Your task to perform on an android device: Search for "beats solo 3" on bestbuy, select the first entry, add it to the cart, then select checkout. Image 0: 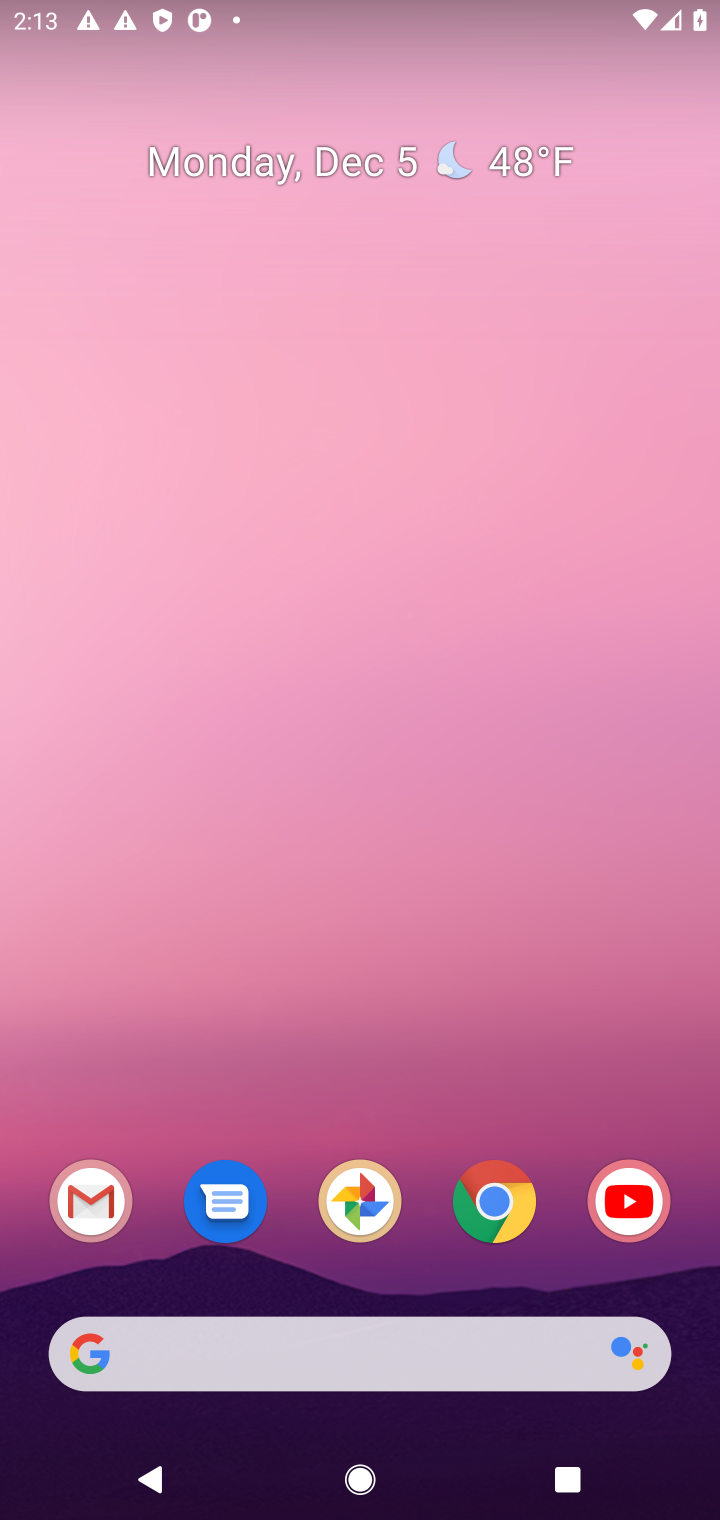
Step 0: click (494, 1209)
Your task to perform on an android device: Search for "beats solo 3" on bestbuy, select the first entry, add it to the cart, then select checkout. Image 1: 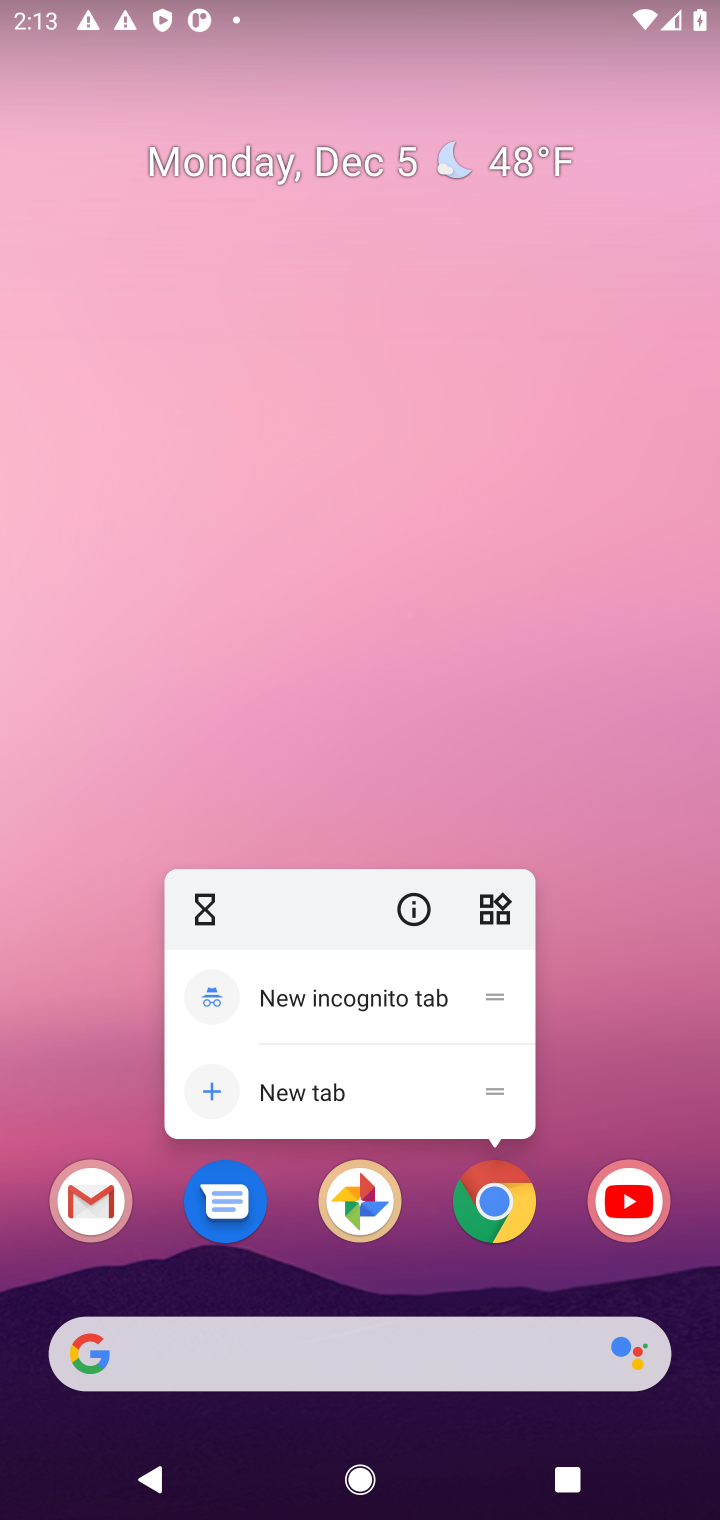
Step 1: click (480, 1202)
Your task to perform on an android device: Search for "beats solo 3" on bestbuy, select the first entry, add it to the cart, then select checkout. Image 2: 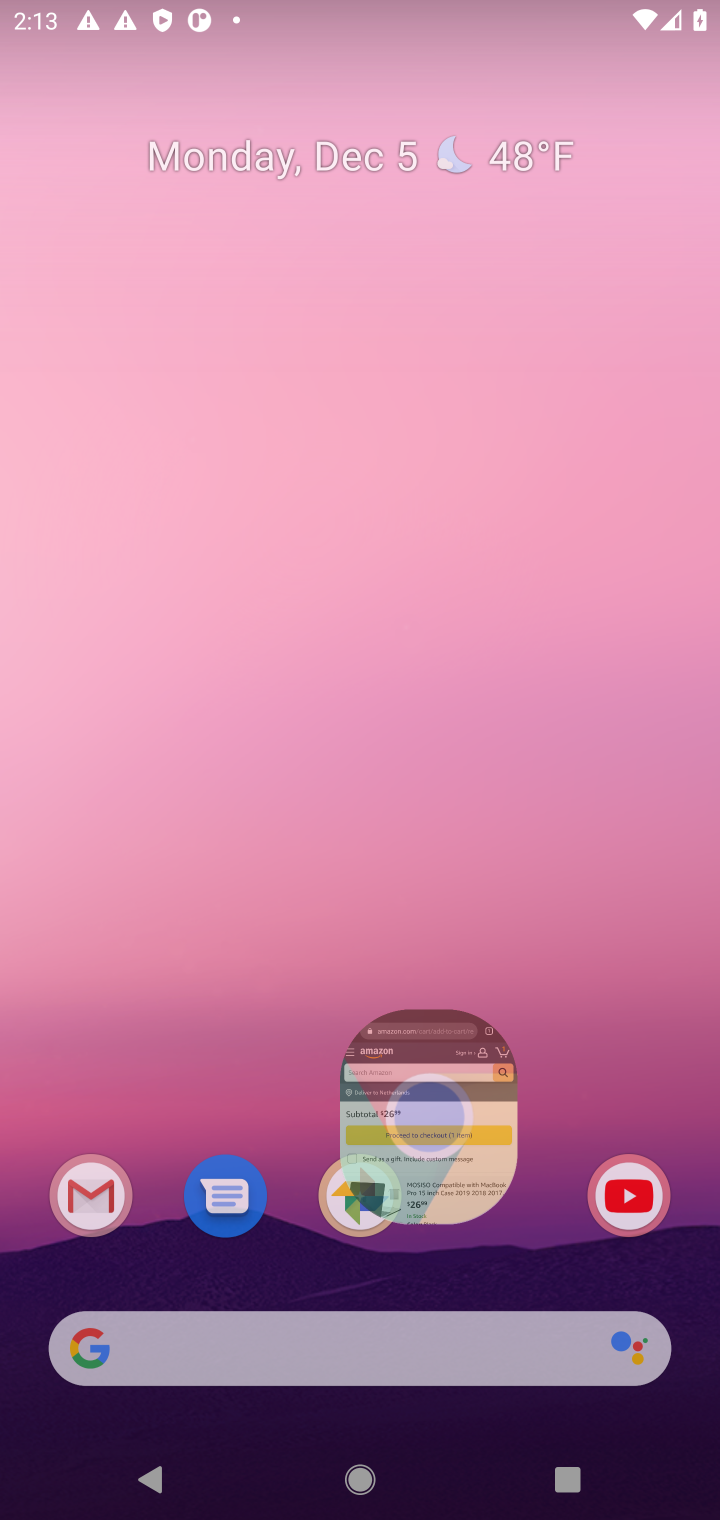
Step 2: click (480, 1202)
Your task to perform on an android device: Search for "beats solo 3" on bestbuy, select the first entry, add it to the cart, then select checkout. Image 3: 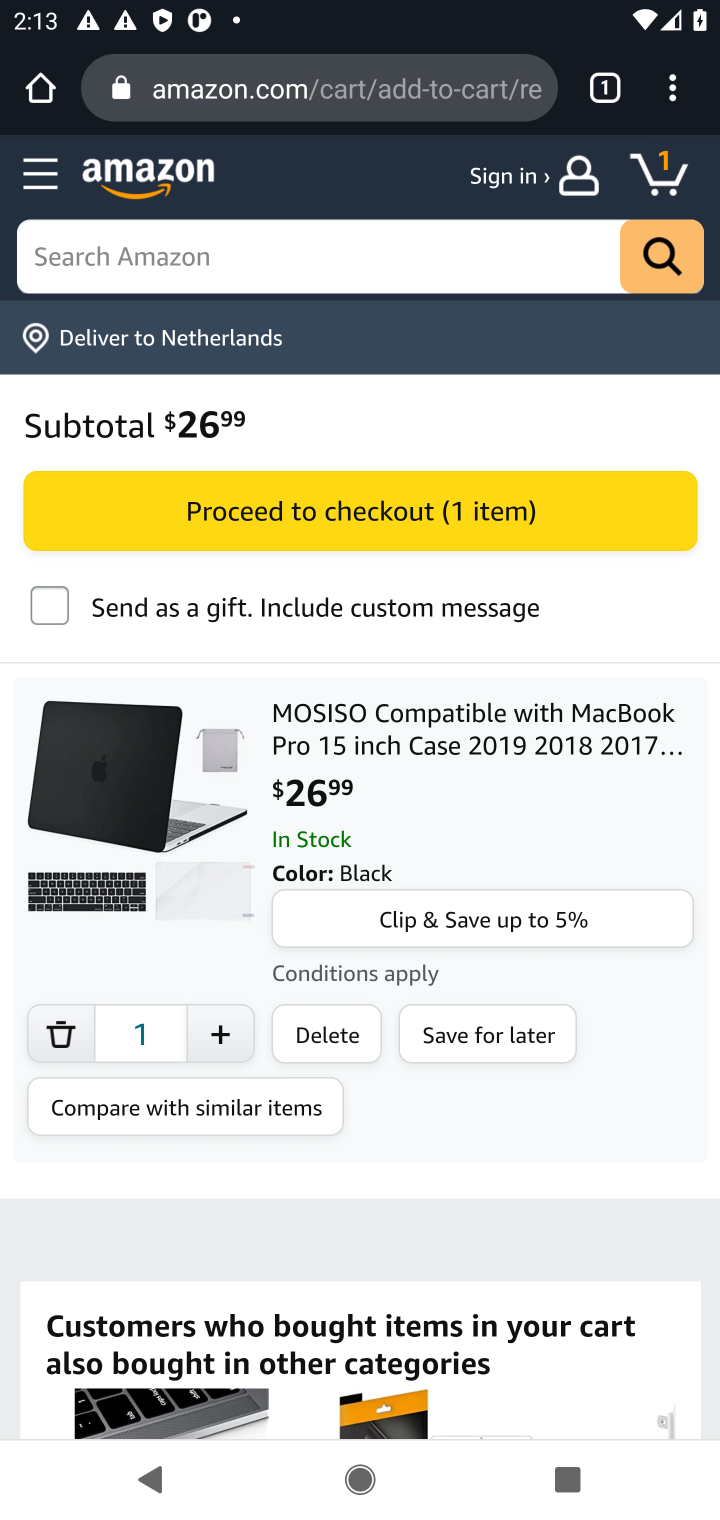
Step 3: click (344, 90)
Your task to perform on an android device: Search for "beats solo 3" on bestbuy, select the first entry, add it to the cart, then select checkout. Image 4: 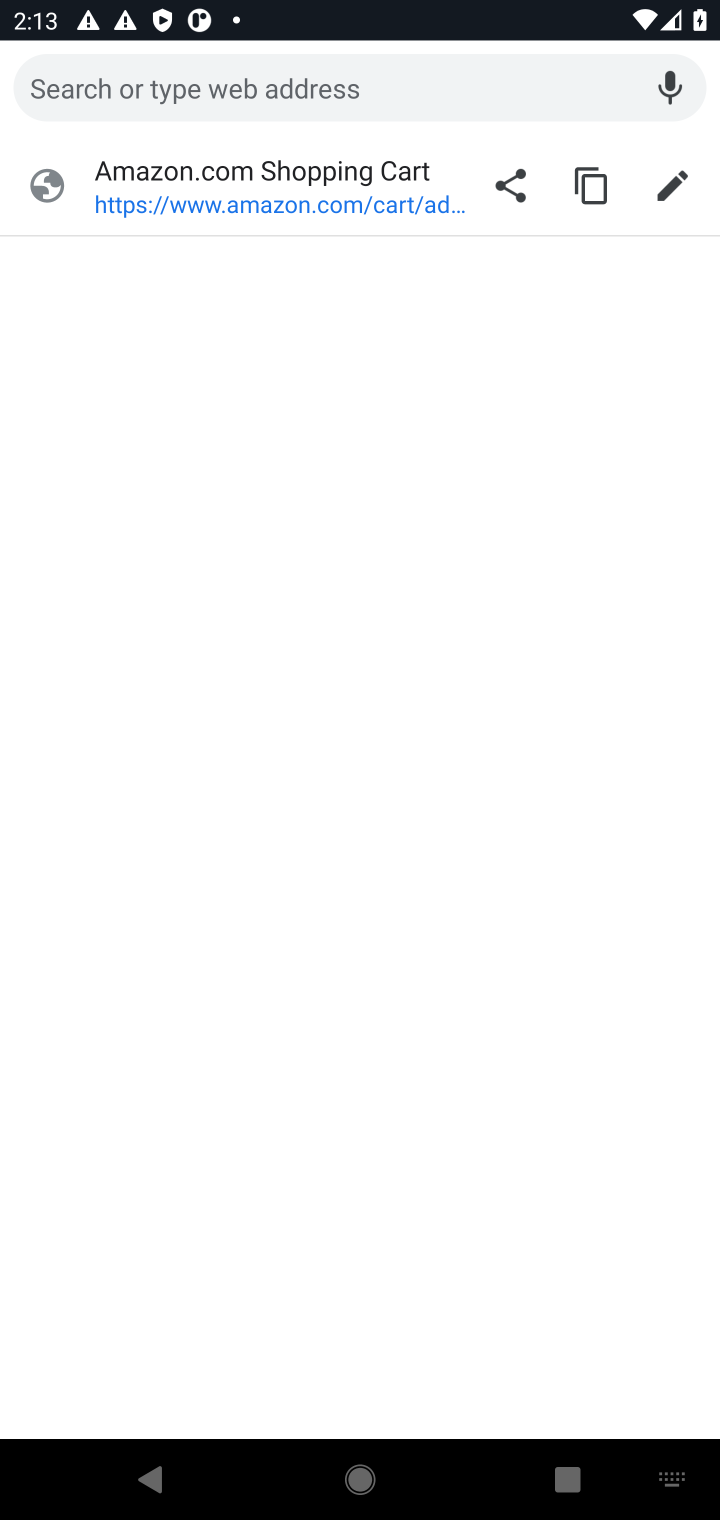
Step 4: type "bestbuy"
Your task to perform on an android device: Search for "beats solo 3" on bestbuy, select the first entry, add it to the cart, then select checkout. Image 5: 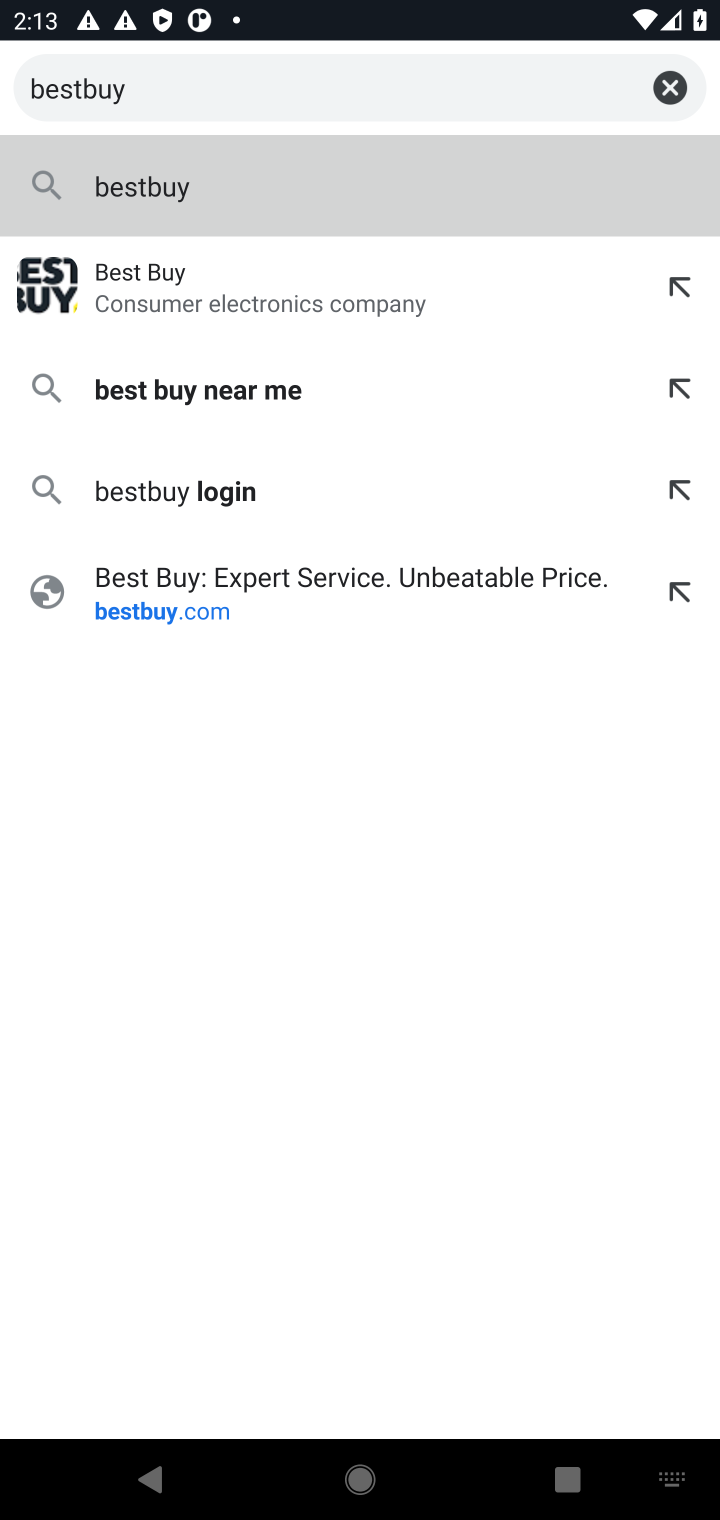
Step 5: click (233, 189)
Your task to perform on an android device: Search for "beats solo 3" on bestbuy, select the first entry, add it to the cart, then select checkout. Image 6: 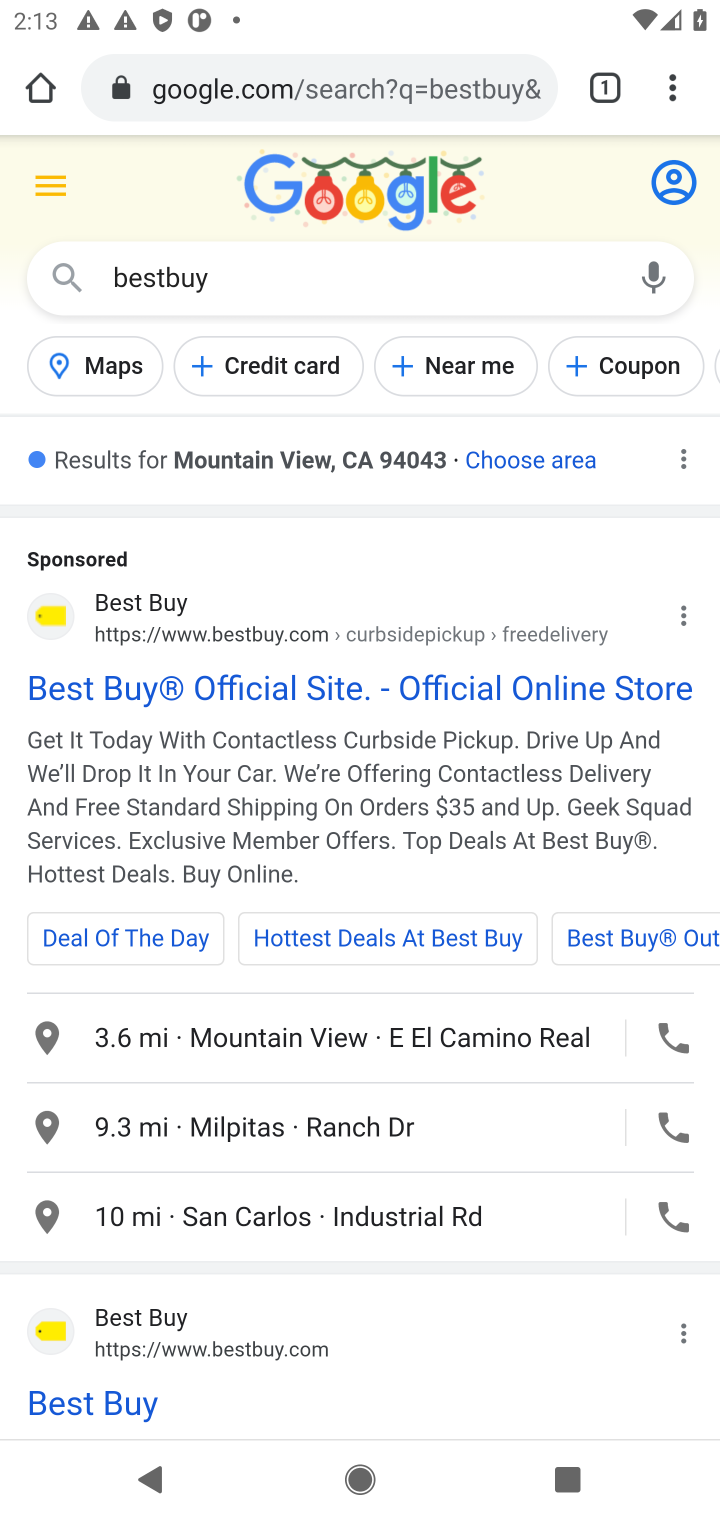
Step 6: click (383, 685)
Your task to perform on an android device: Search for "beats solo 3" on bestbuy, select the first entry, add it to the cart, then select checkout. Image 7: 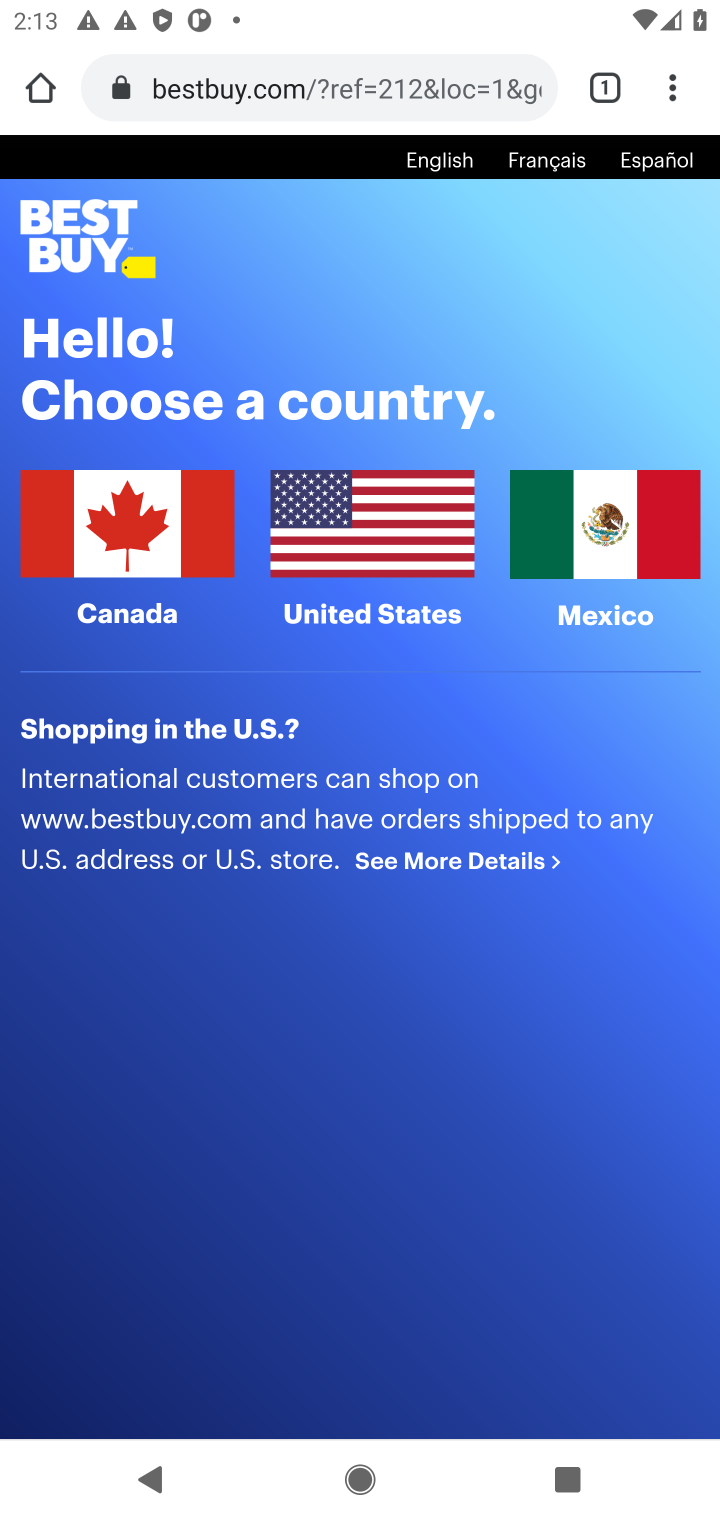
Step 7: click (384, 544)
Your task to perform on an android device: Search for "beats solo 3" on bestbuy, select the first entry, add it to the cart, then select checkout. Image 8: 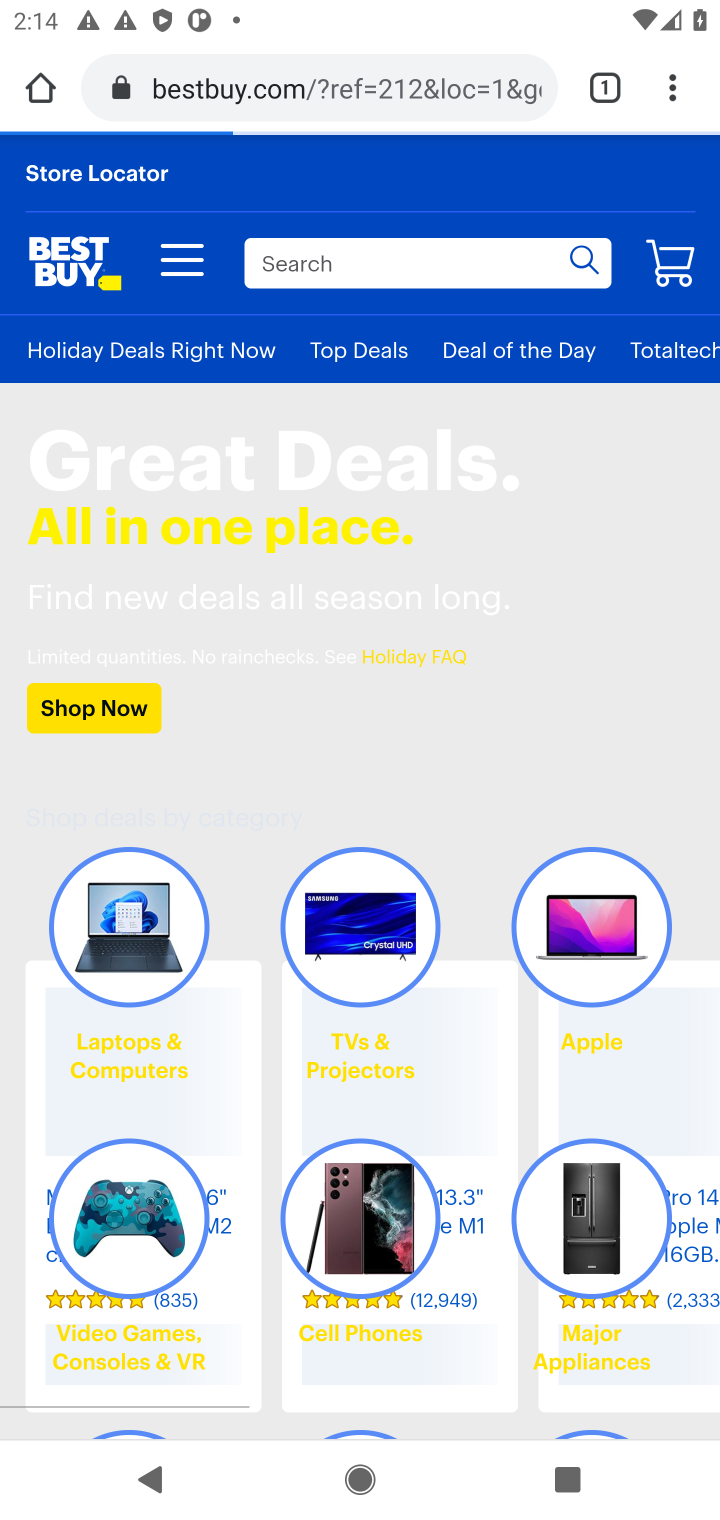
Step 8: click (578, 256)
Your task to perform on an android device: Search for "beats solo 3" on bestbuy, select the first entry, add it to the cart, then select checkout. Image 9: 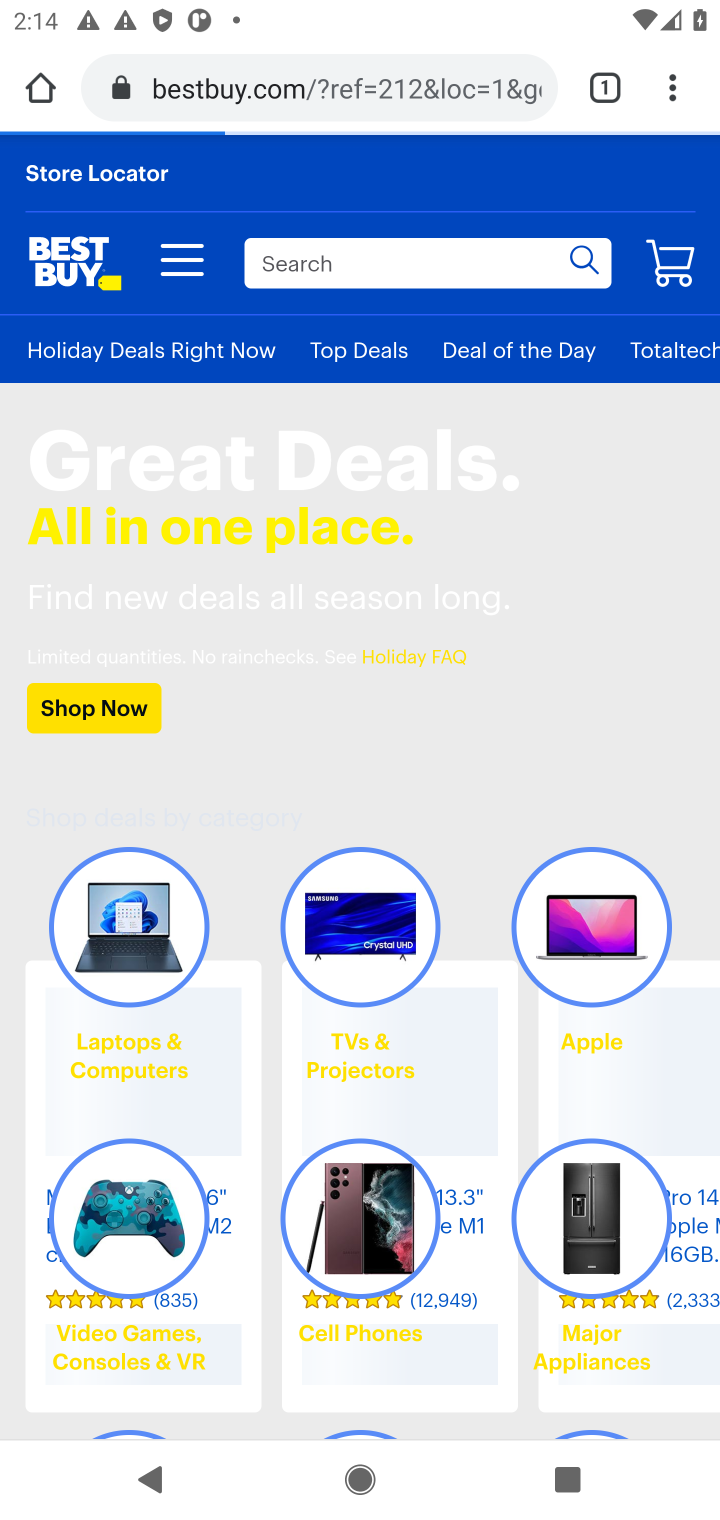
Step 9: click (380, 252)
Your task to perform on an android device: Search for "beats solo 3" on bestbuy, select the first entry, add it to the cart, then select checkout. Image 10: 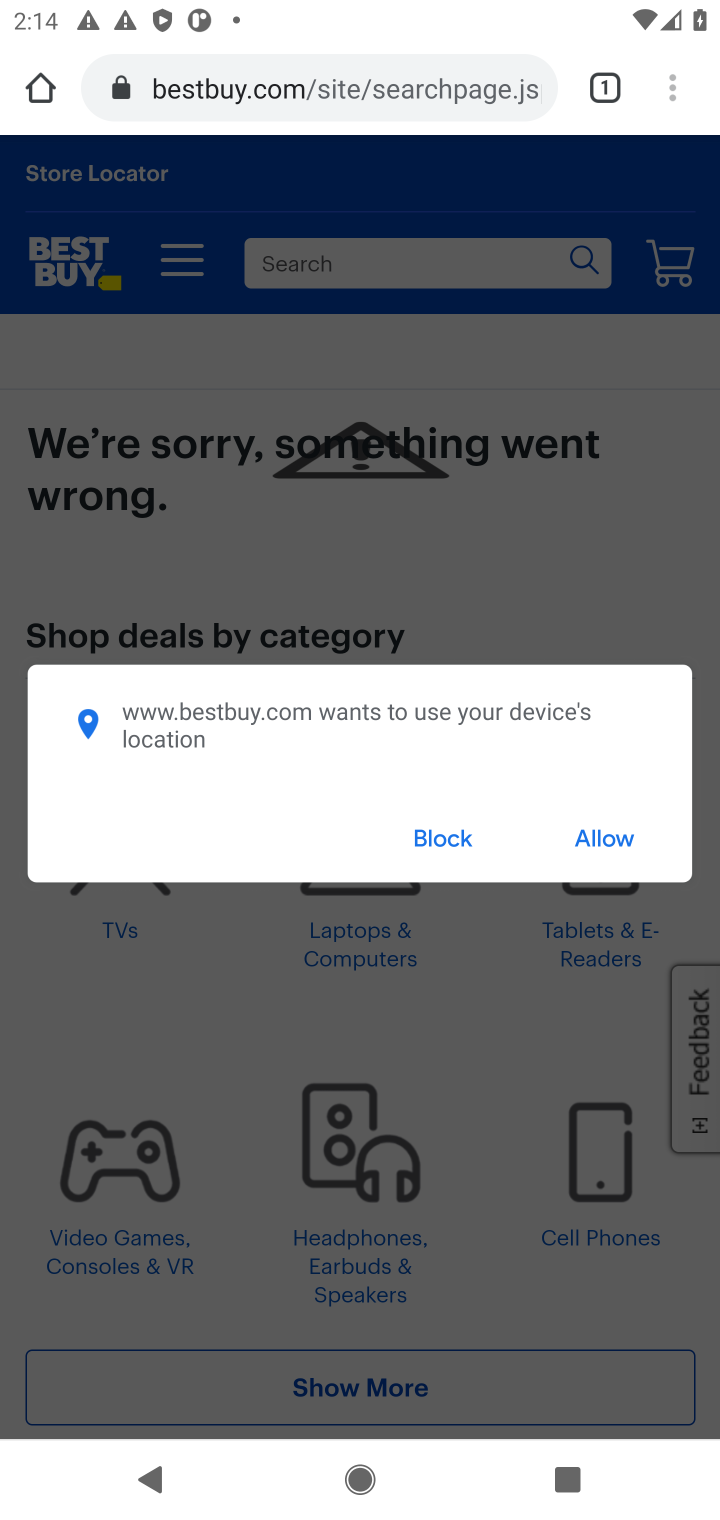
Step 10: type "beat"
Your task to perform on an android device: Search for "beats solo 3" on bestbuy, select the first entry, add it to the cart, then select checkout. Image 11: 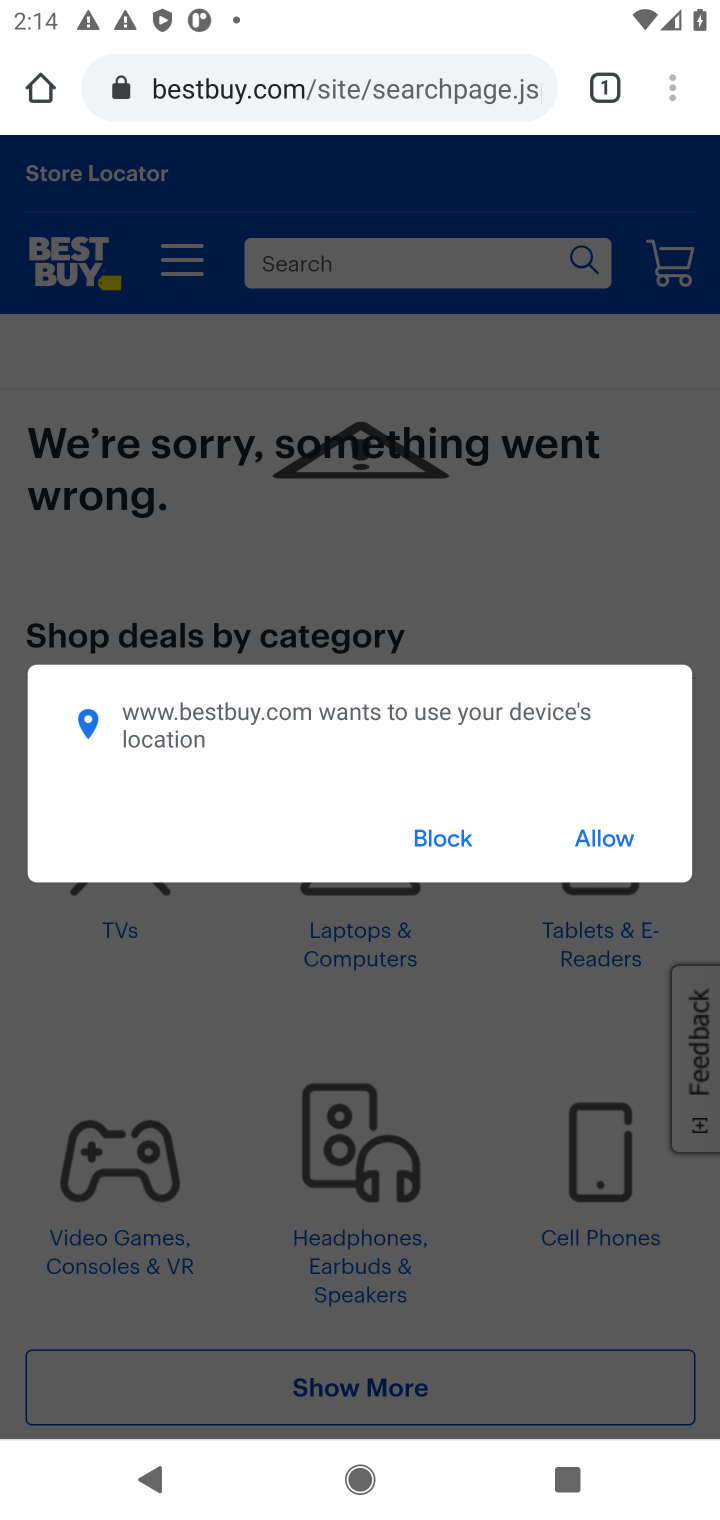
Step 11: click (446, 838)
Your task to perform on an android device: Search for "beats solo 3" on bestbuy, select the first entry, add it to the cart, then select checkout. Image 12: 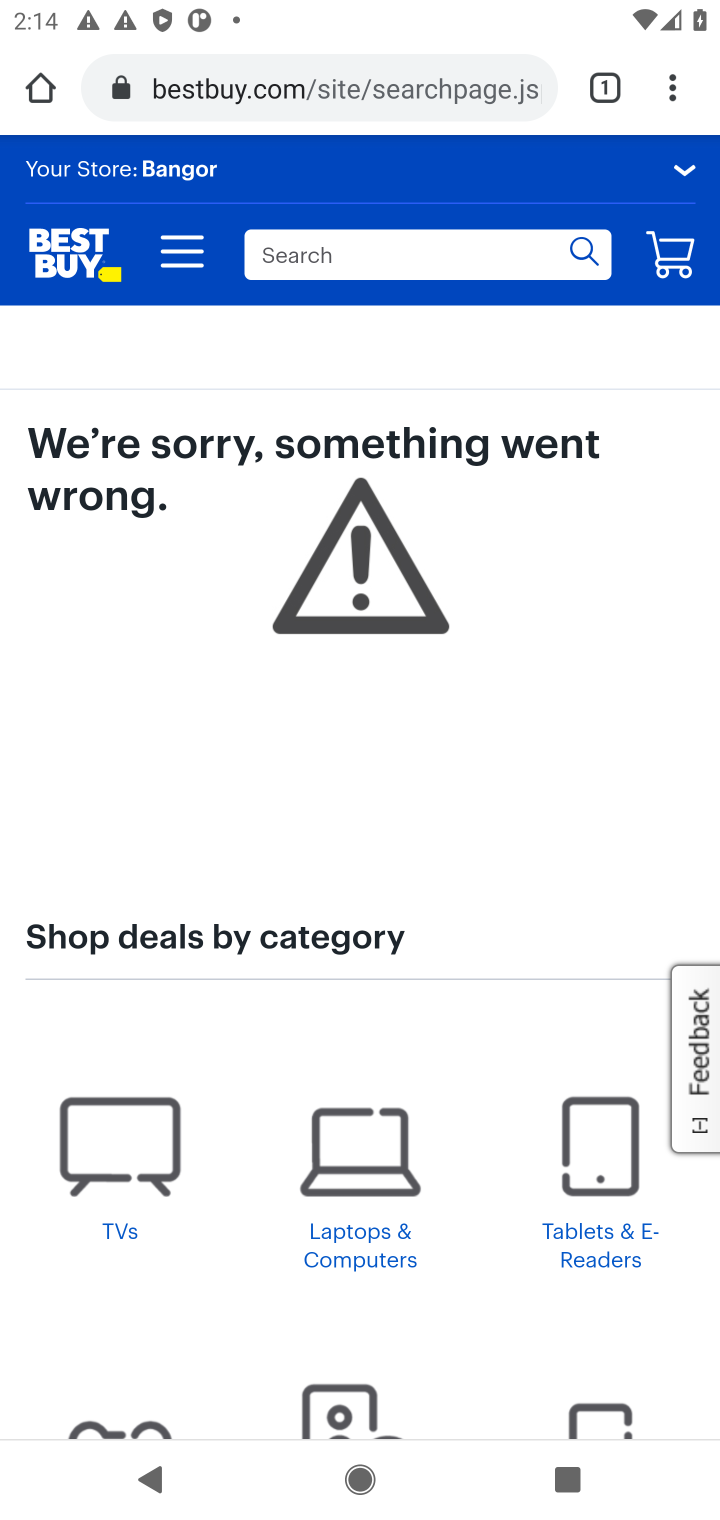
Step 12: click (419, 257)
Your task to perform on an android device: Search for "beats solo 3" on bestbuy, select the first entry, add it to the cart, then select checkout. Image 13: 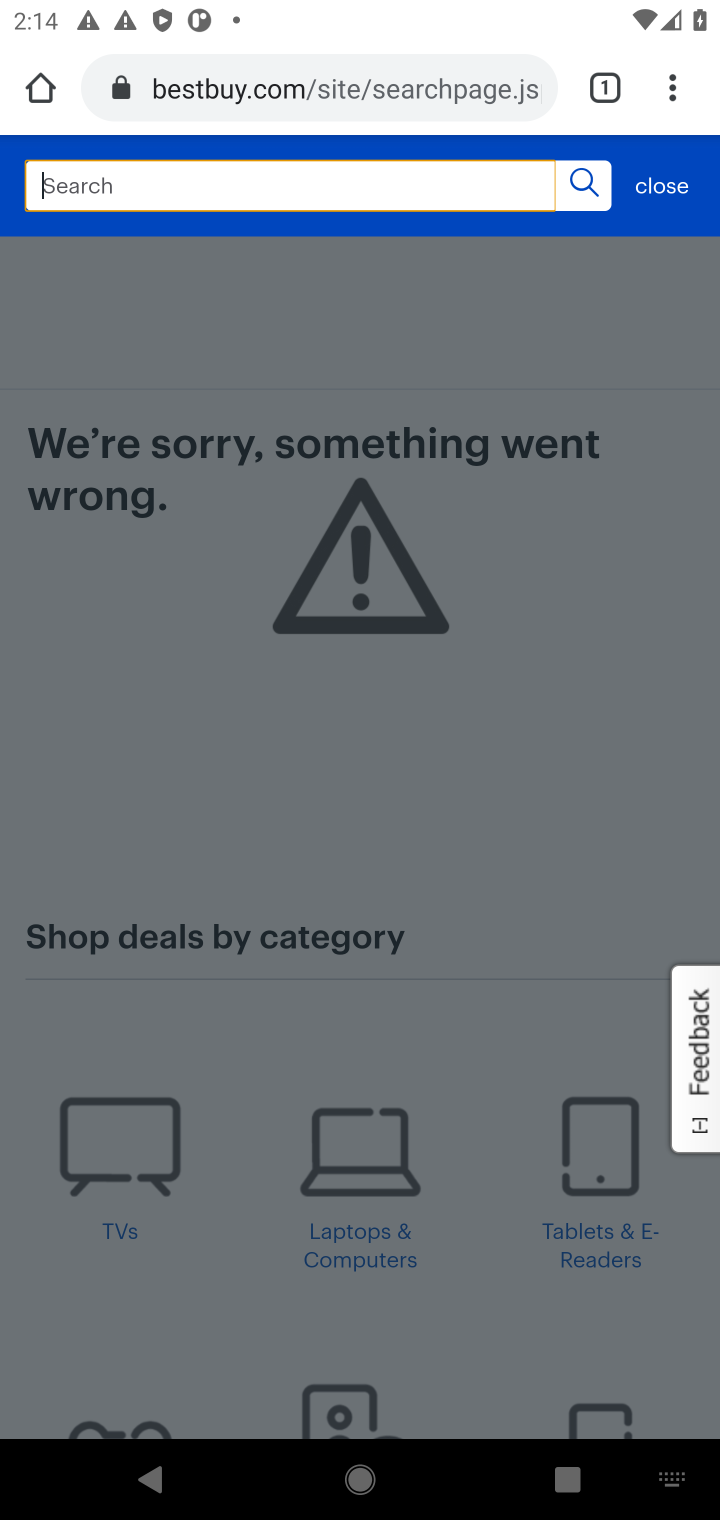
Step 13: type "beats solo 3"
Your task to perform on an android device: Search for "beats solo 3" on bestbuy, select the first entry, add it to the cart, then select checkout. Image 14: 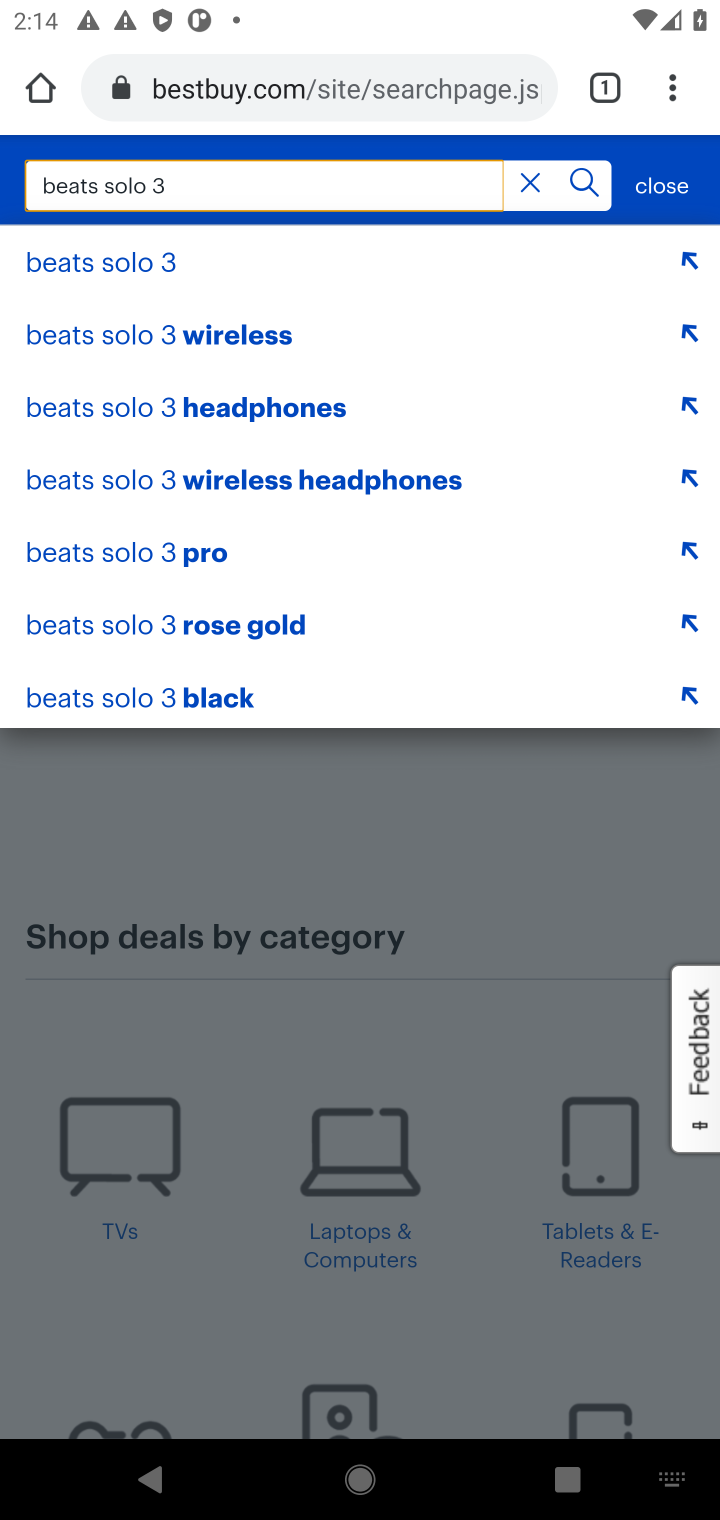
Step 14: click (99, 270)
Your task to perform on an android device: Search for "beats solo 3" on bestbuy, select the first entry, add it to the cart, then select checkout. Image 15: 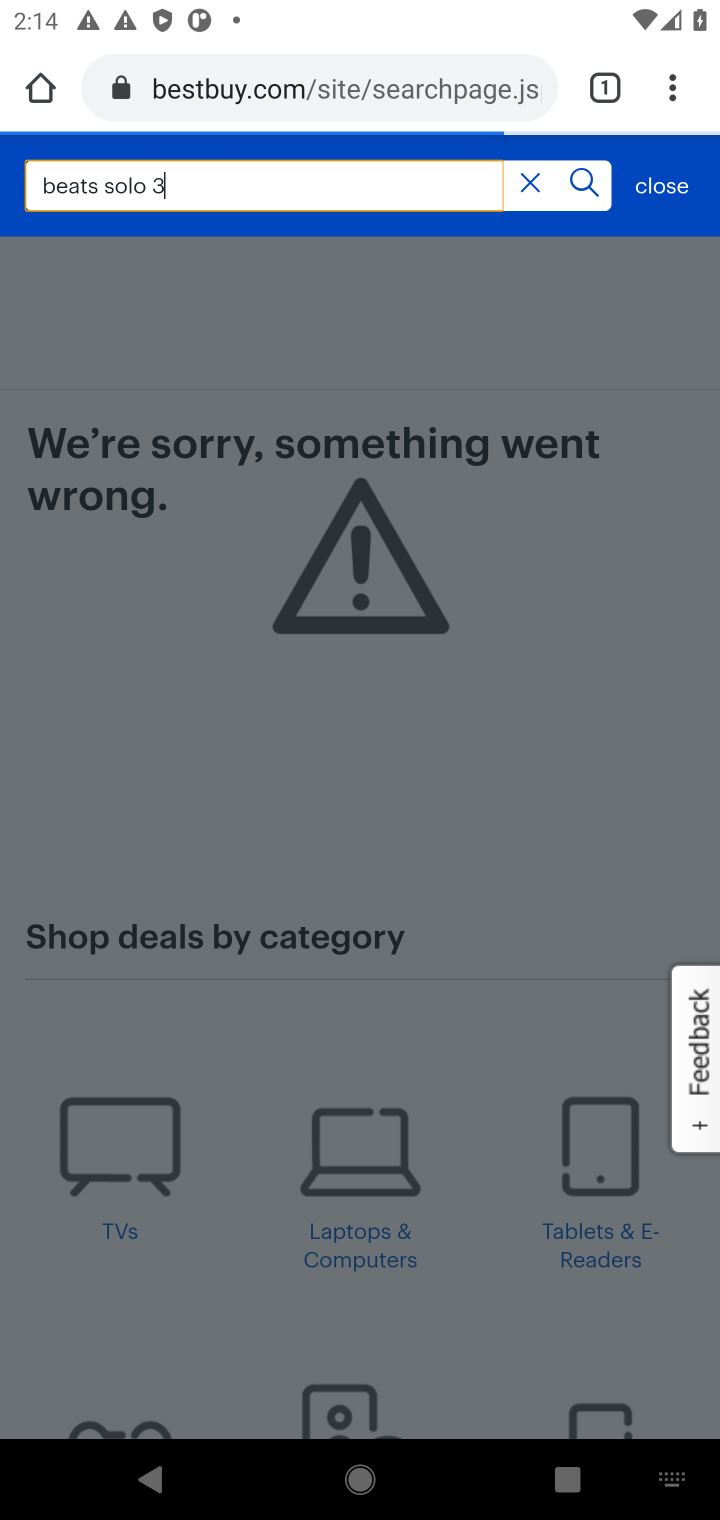
Step 15: click (370, 185)
Your task to perform on an android device: Search for "beats solo 3" on bestbuy, select the first entry, add it to the cart, then select checkout. Image 16: 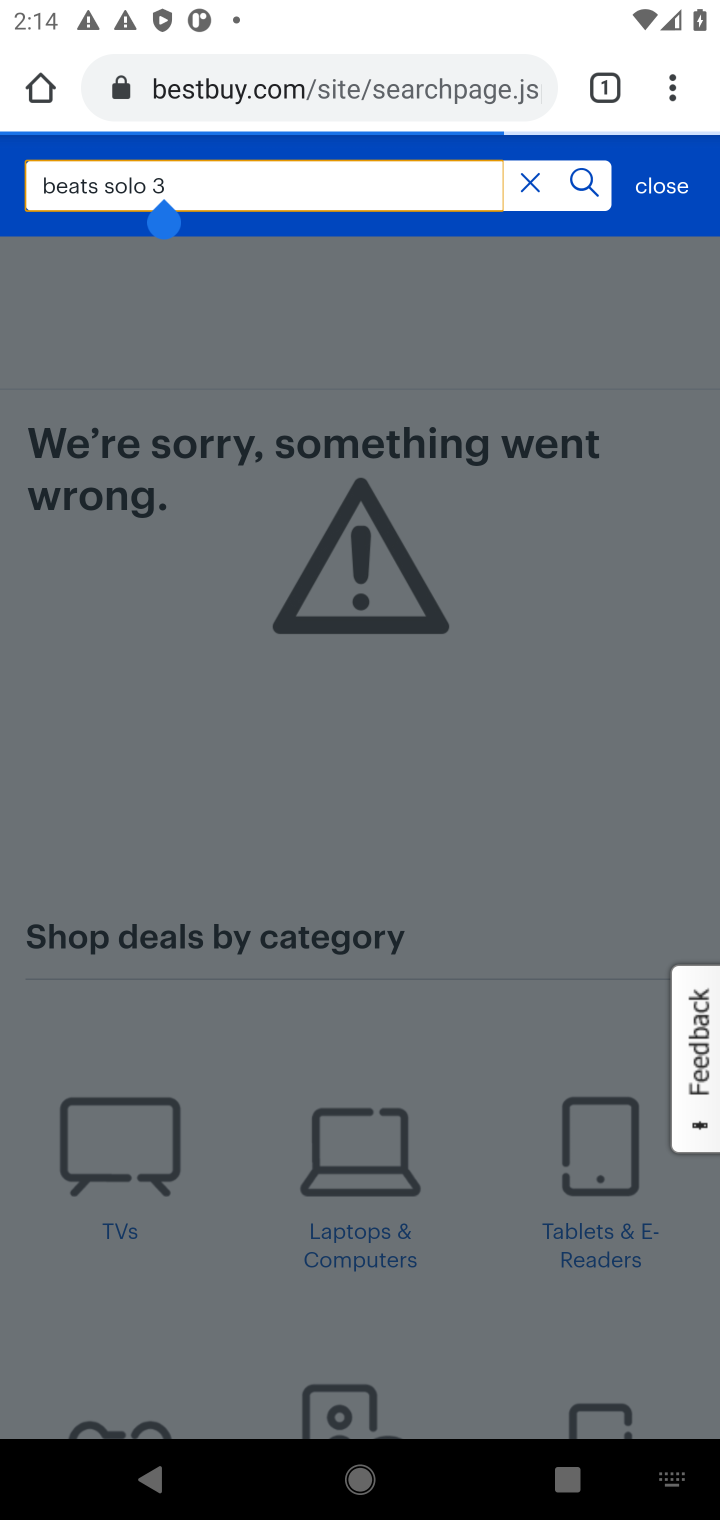
Step 16: task complete